Your task to perform on an android device: Open location settings Image 0: 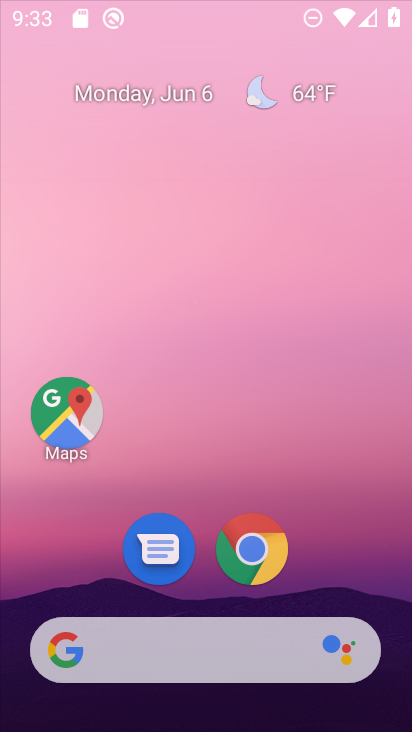
Step 0: drag from (252, 730) to (227, 175)
Your task to perform on an android device: Open location settings Image 1: 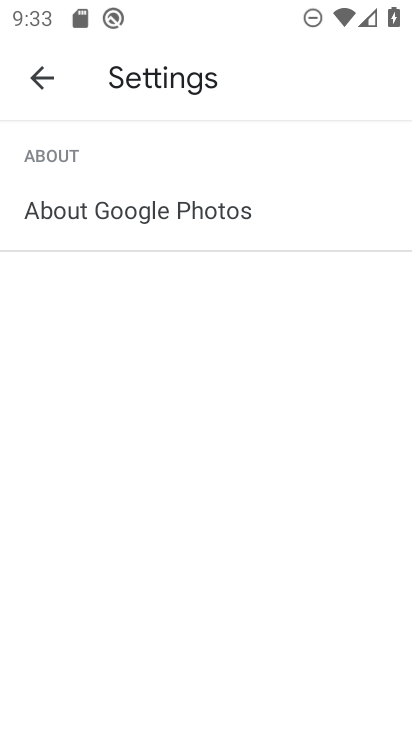
Step 1: press home button
Your task to perform on an android device: Open location settings Image 2: 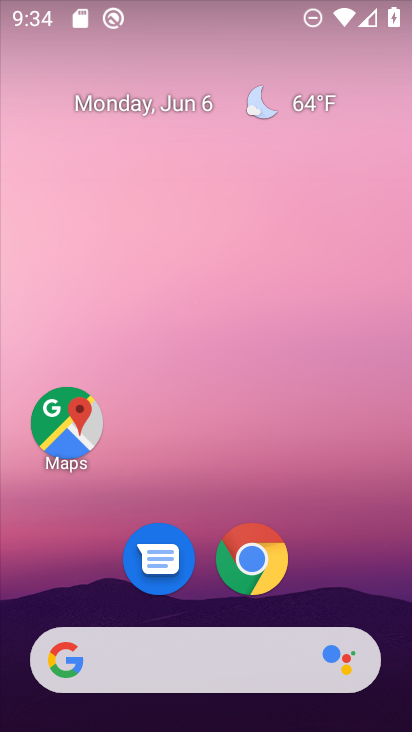
Step 2: drag from (263, 727) to (247, 166)
Your task to perform on an android device: Open location settings Image 3: 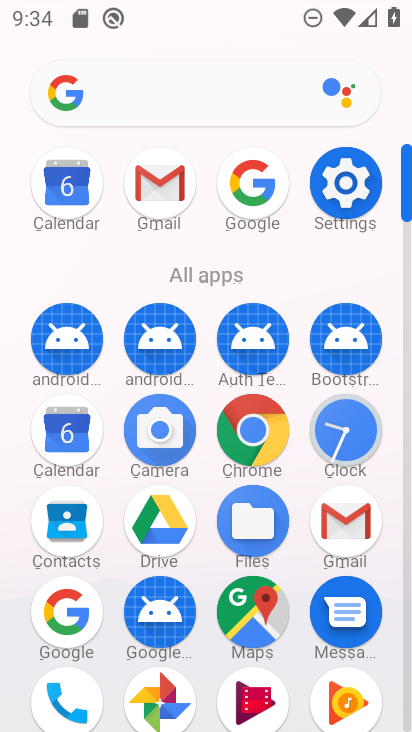
Step 3: click (348, 175)
Your task to perform on an android device: Open location settings Image 4: 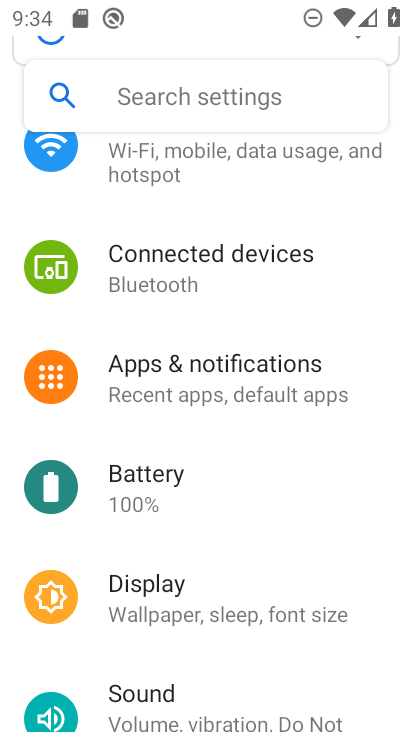
Step 4: drag from (226, 683) to (233, 264)
Your task to perform on an android device: Open location settings Image 5: 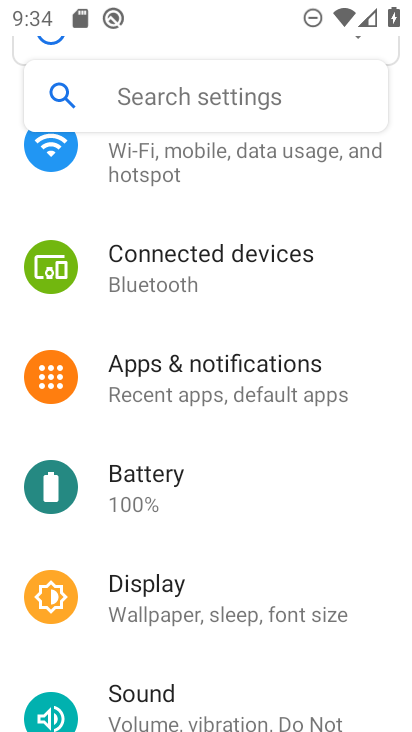
Step 5: drag from (213, 678) to (220, 281)
Your task to perform on an android device: Open location settings Image 6: 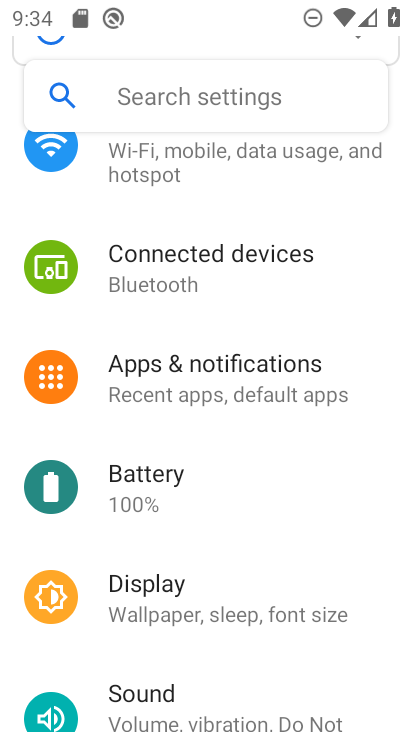
Step 6: drag from (223, 628) to (222, 284)
Your task to perform on an android device: Open location settings Image 7: 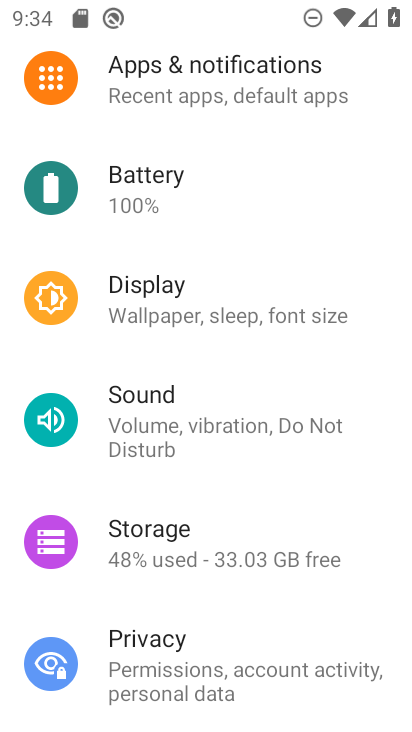
Step 7: drag from (231, 701) to (236, 319)
Your task to perform on an android device: Open location settings Image 8: 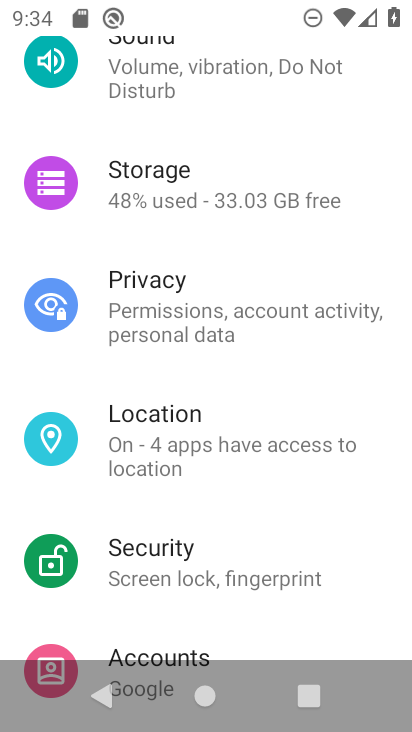
Step 8: click (161, 438)
Your task to perform on an android device: Open location settings Image 9: 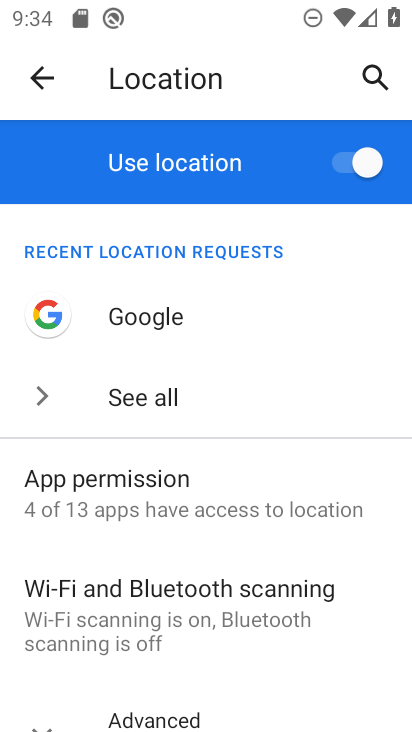
Step 9: task complete